Your task to perform on an android device: Go to CNN.com Image 0: 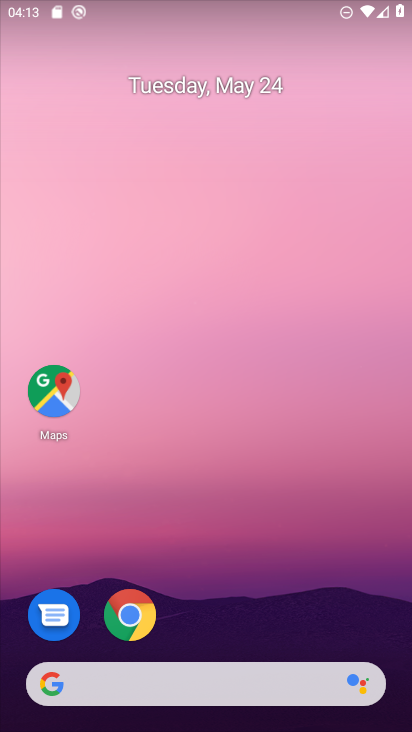
Step 0: drag from (280, 597) to (235, 68)
Your task to perform on an android device: Go to CNN.com Image 1: 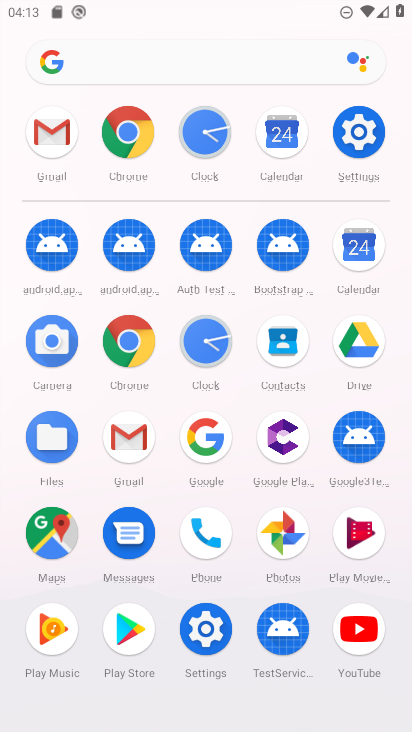
Step 1: click (131, 129)
Your task to perform on an android device: Go to CNN.com Image 2: 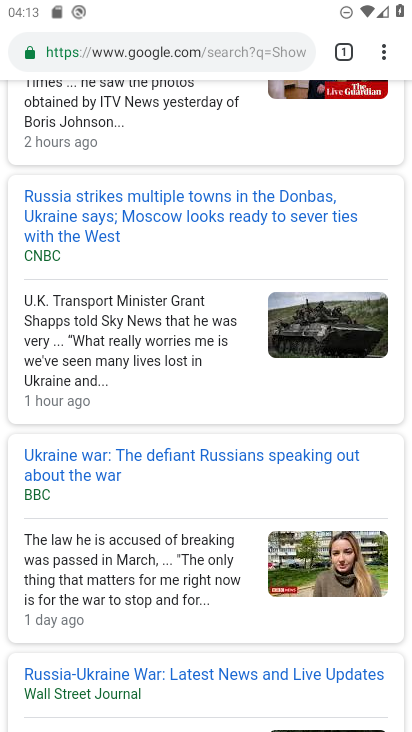
Step 2: click (179, 61)
Your task to perform on an android device: Go to CNN.com Image 3: 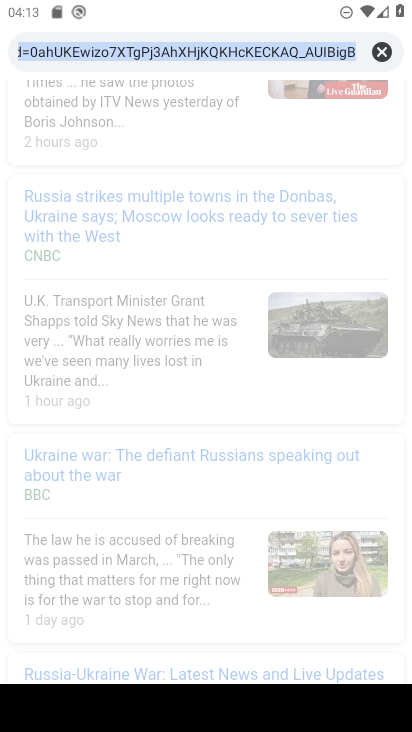
Step 3: click (384, 47)
Your task to perform on an android device: Go to CNN.com Image 4: 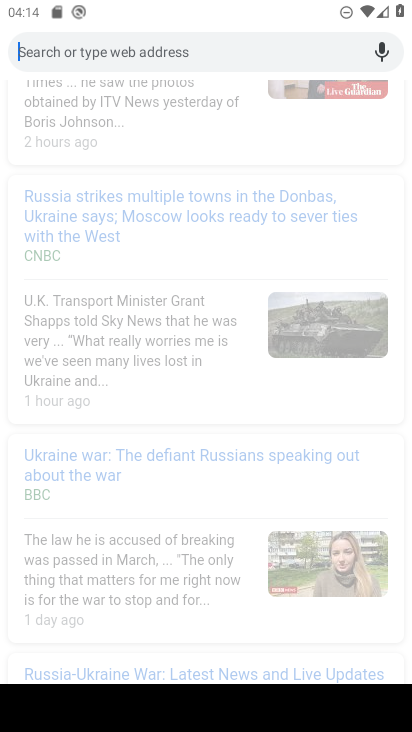
Step 4: type "CNN.com"
Your task to perform on an android device: Go to CNN.com Image 5: 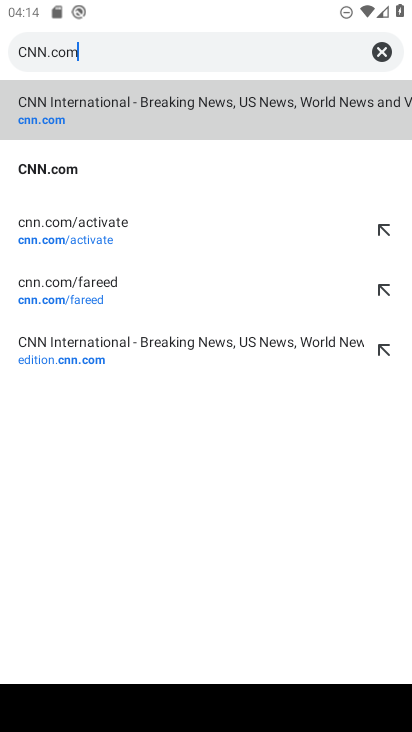
Step 5: click (109, 116)
Your task to perform on an android device: Go to CNN.com Image 6: 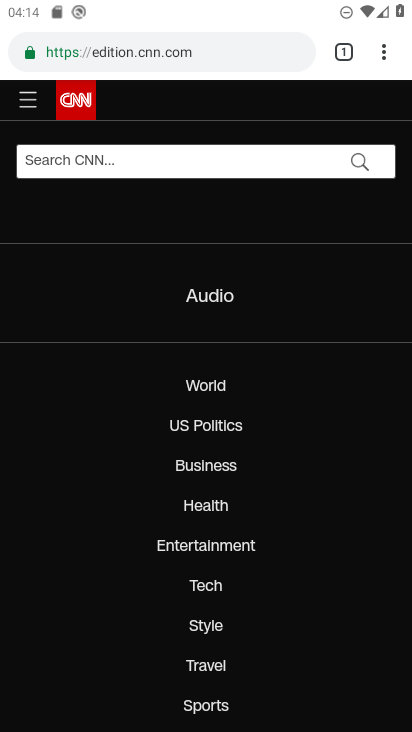
Step 6: task complete